Your task to perform on an android device: open app "Pluto TV - Live TV and Movies" (install if not already installed), go to login, and select forgot password Image 0: 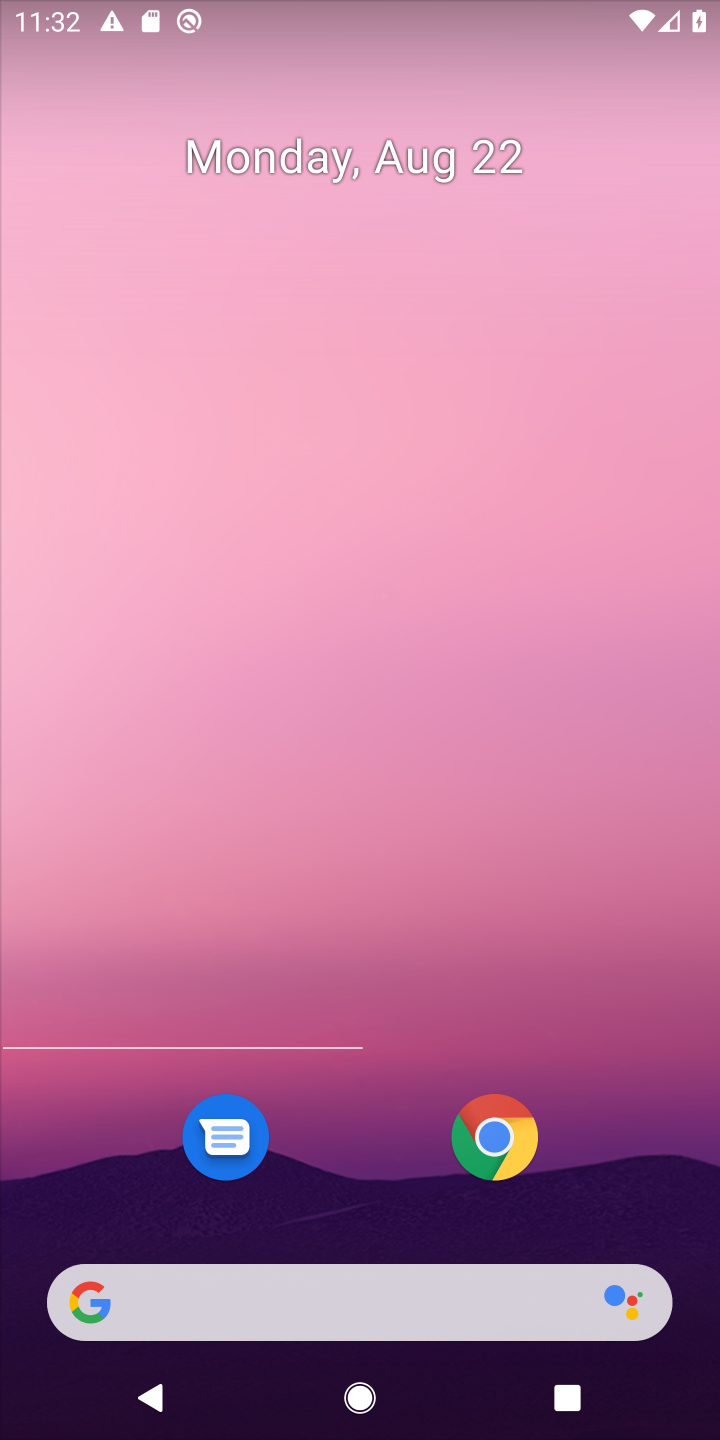
Step 0: press home button
Your task to perform on an android device: open app "Pluto TV - Live TV and Movies" (install if not already installed), go to login, and select forgot password Image 1: 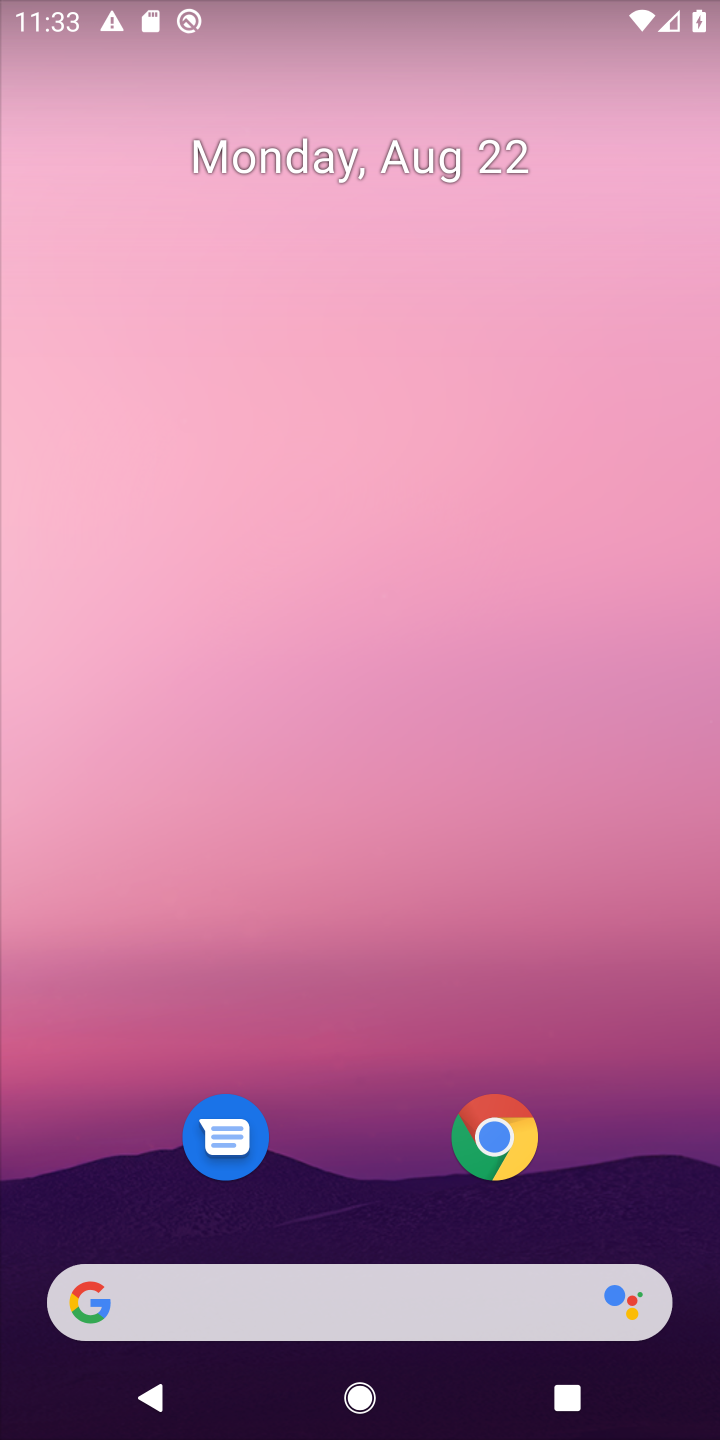
Step 1: drag from (385, 329) to (432, 227)
Your task to perform on an android device: open app "Pluto TV - Live TV and Movies" (install if not already installed), go to login, and select forgot password Image 2: 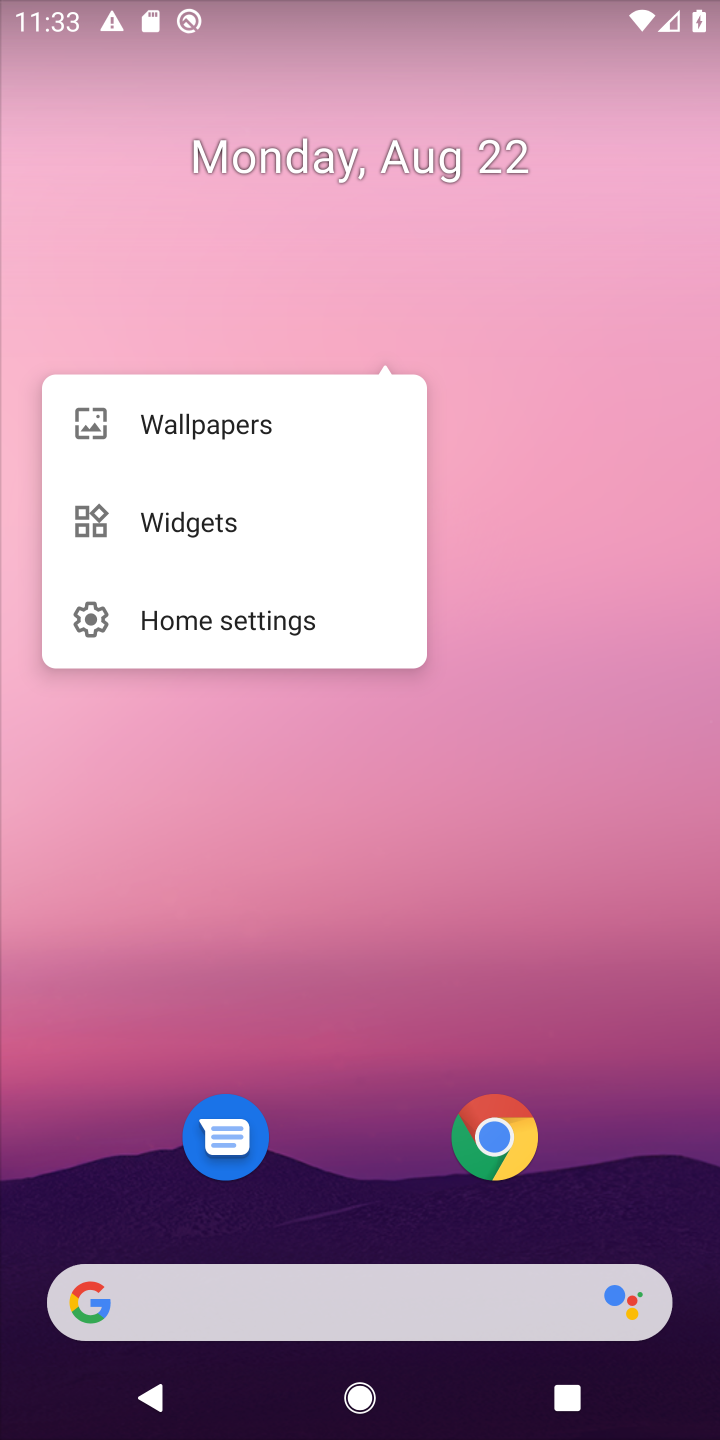
Step 2: click (334, 1213)
Your task to perform on an android device: open app "Pluto TV - Live TV and Movies" (install if not already installed), go to login, and select forgot password Image 3: 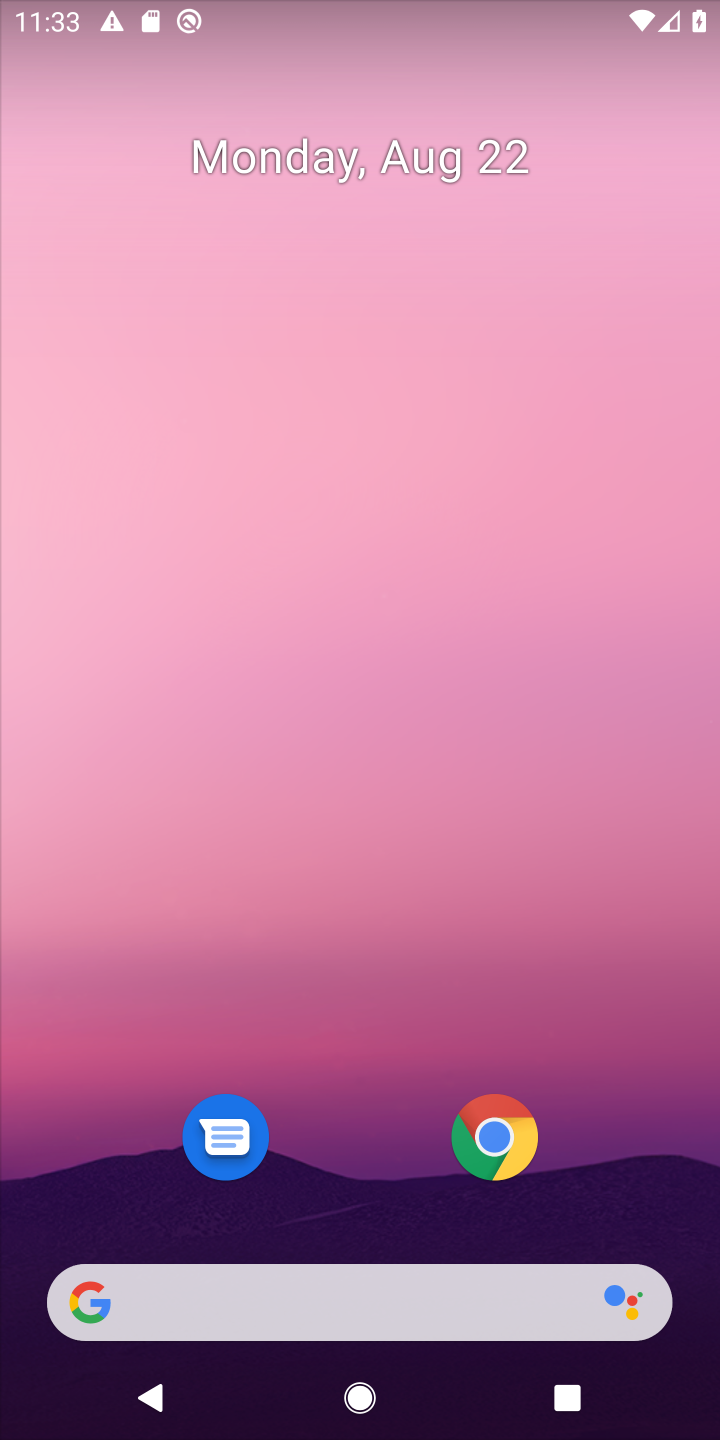
Step 3: drag from (334, 1141) to (350, 102)
Your task to perform on an android device: open app "Pluto TV - Live TV and Movies" (install if not already installed), go to login, and select forgot password Image 4: 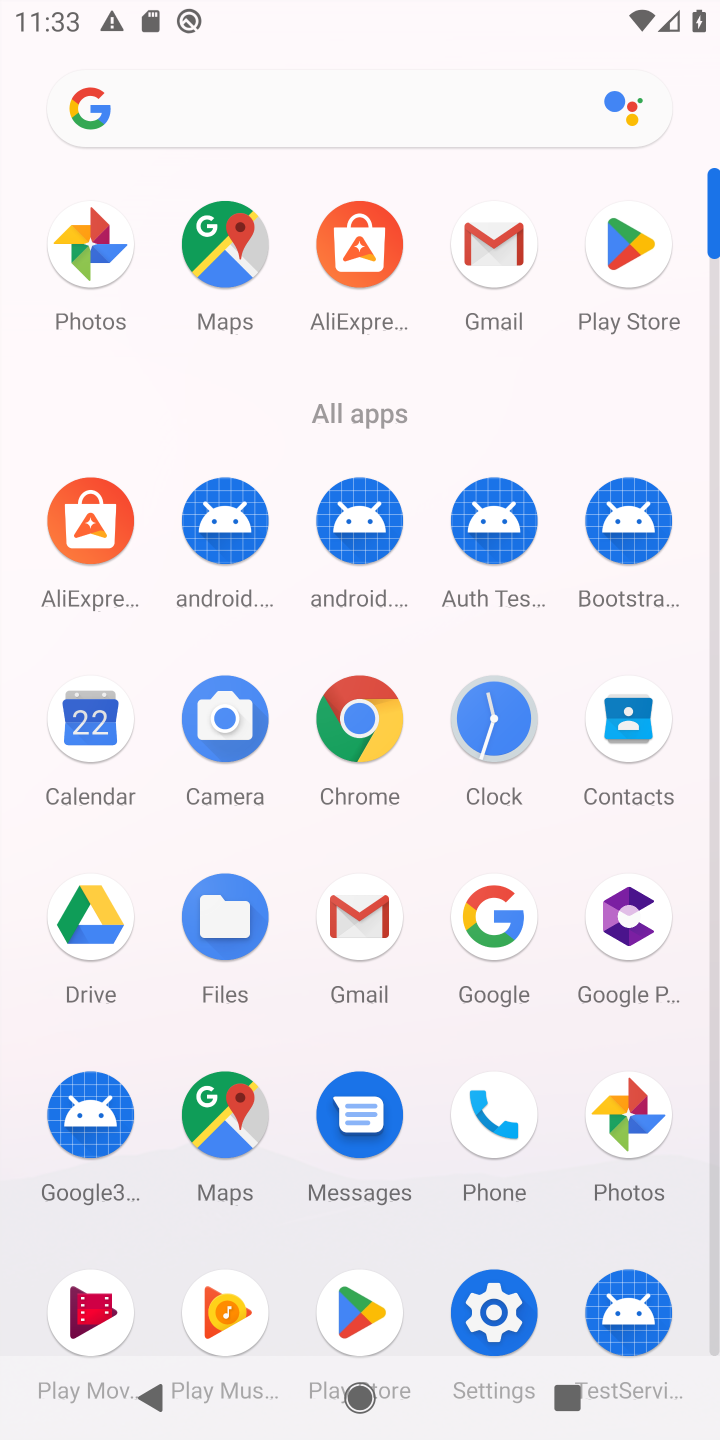
Step 4: click (626, 238)
Your task to perform on an android device: open app "Pluto TV - Live TV and Movies" (install if not already installed), go to login, and select forgot password Image 5: 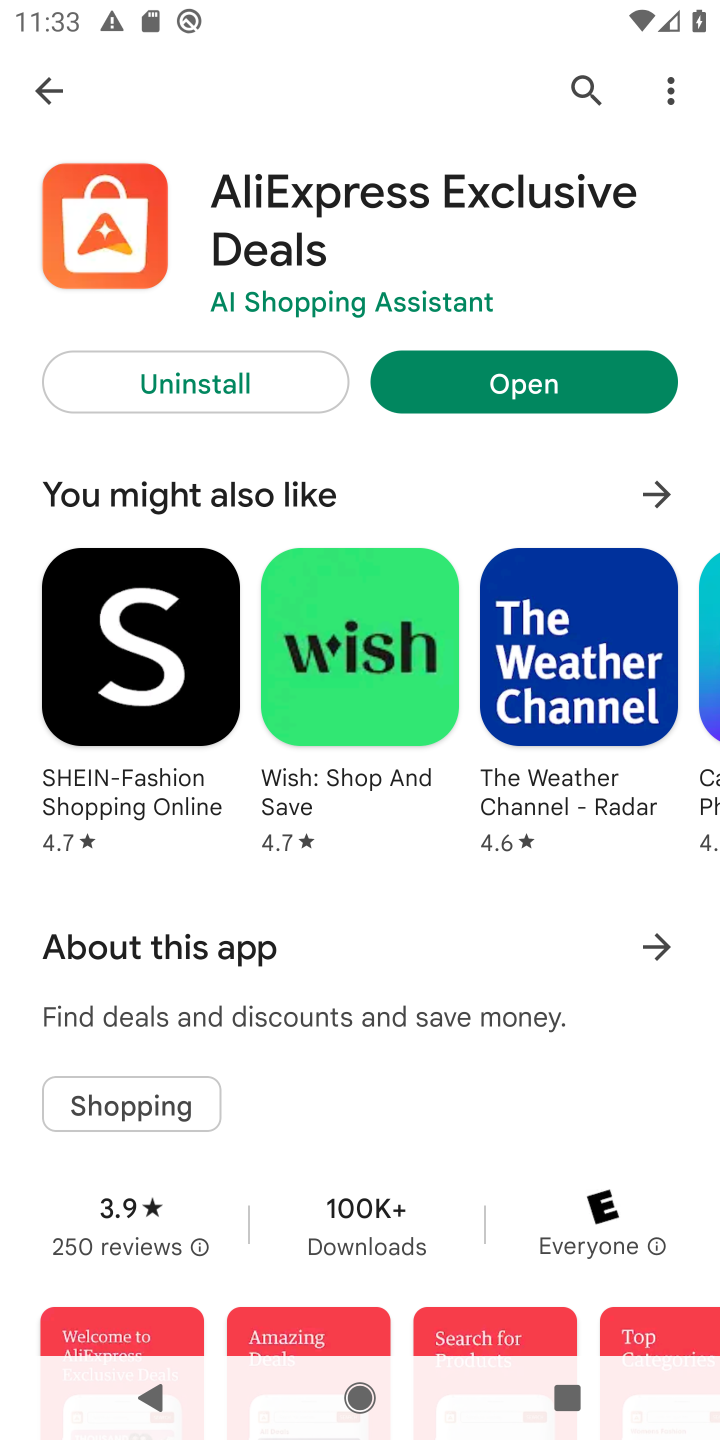
Step 5: click (40, 85)
Your task to perform on an android device: open app "Pluto TV - Live TV and Movies" (install if not already installed), go to login, and select forgot password Image 6: 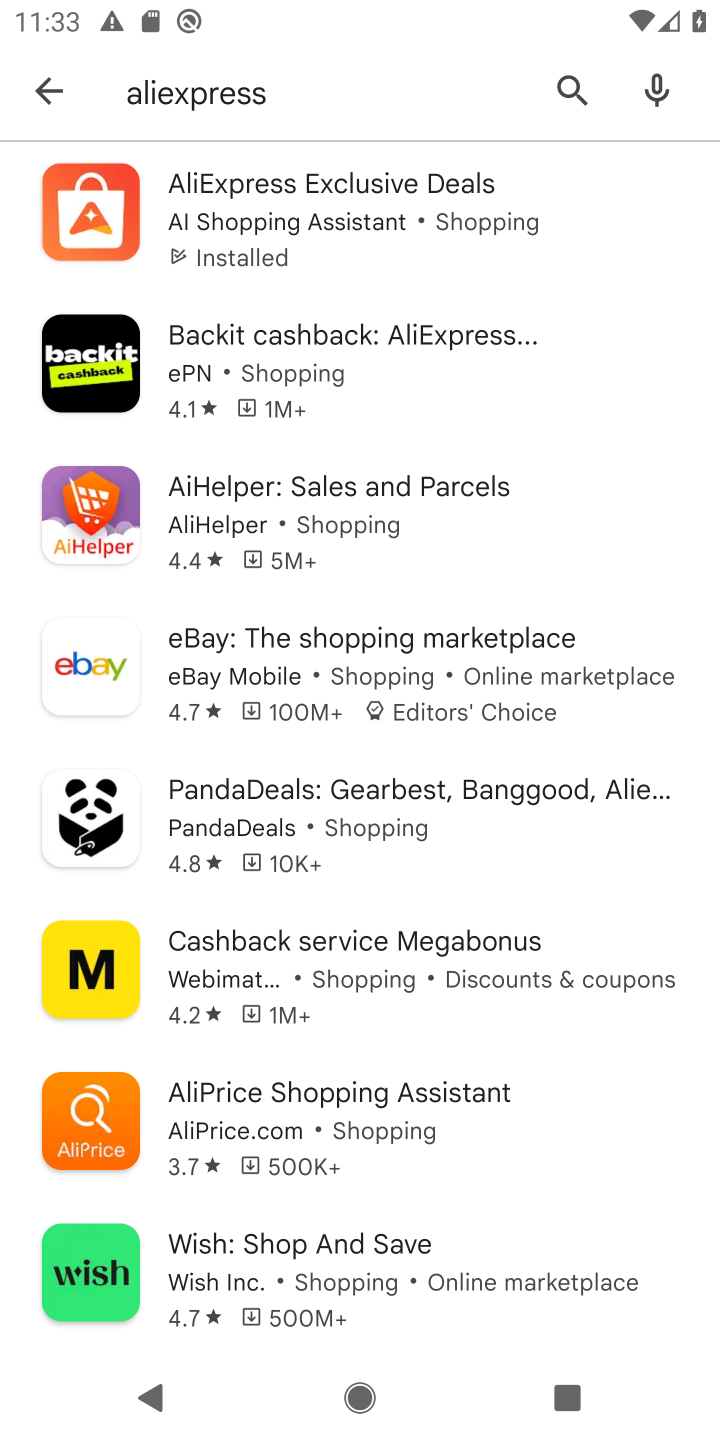
Step 6: click (34, 90)
Your task to perform on an android device: open app "Pluto TV - Live TV and Movies" (install if not already installed), go to login, and select forgot password Image 7: 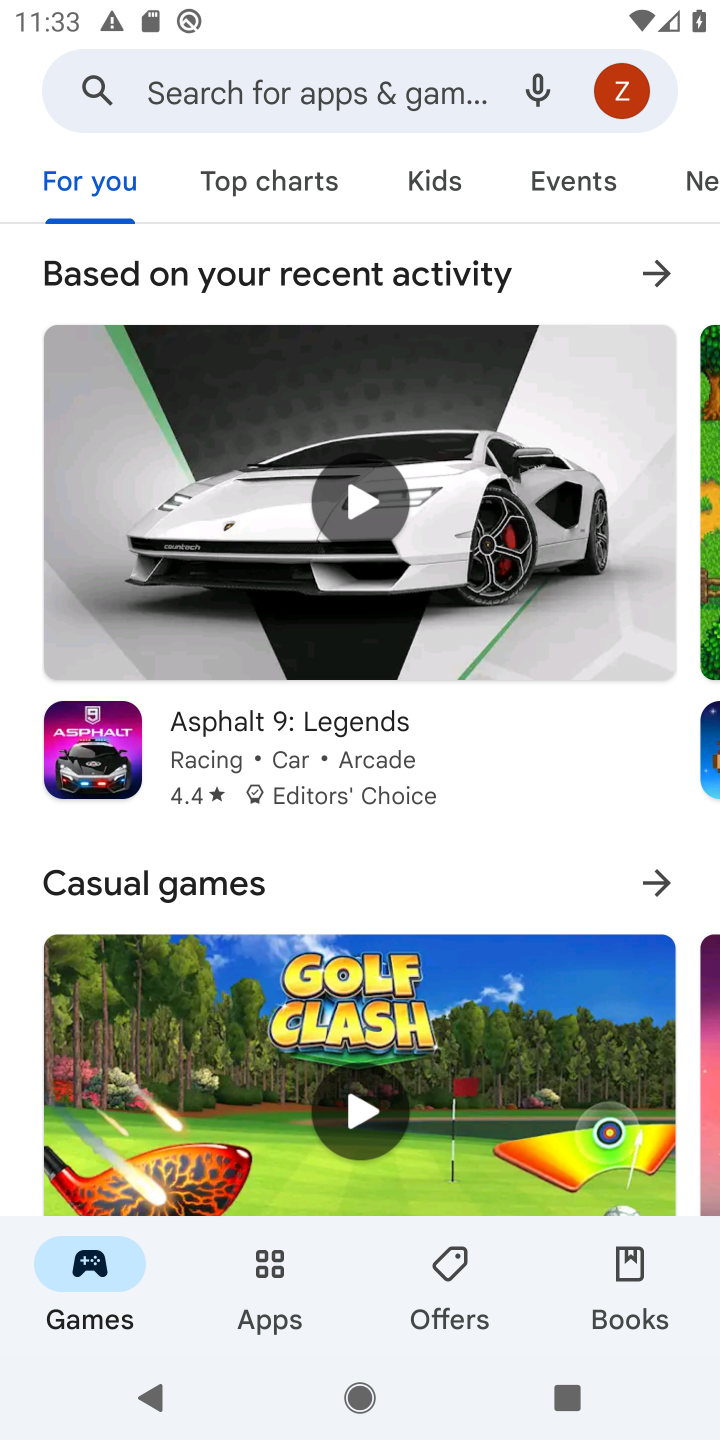
Step 7: click (265, 90)
Your task to perform on an android device: open app "Pluto TV - Live TV and Movies" (install if not already installed), go to login, and select forgot password Image 8: 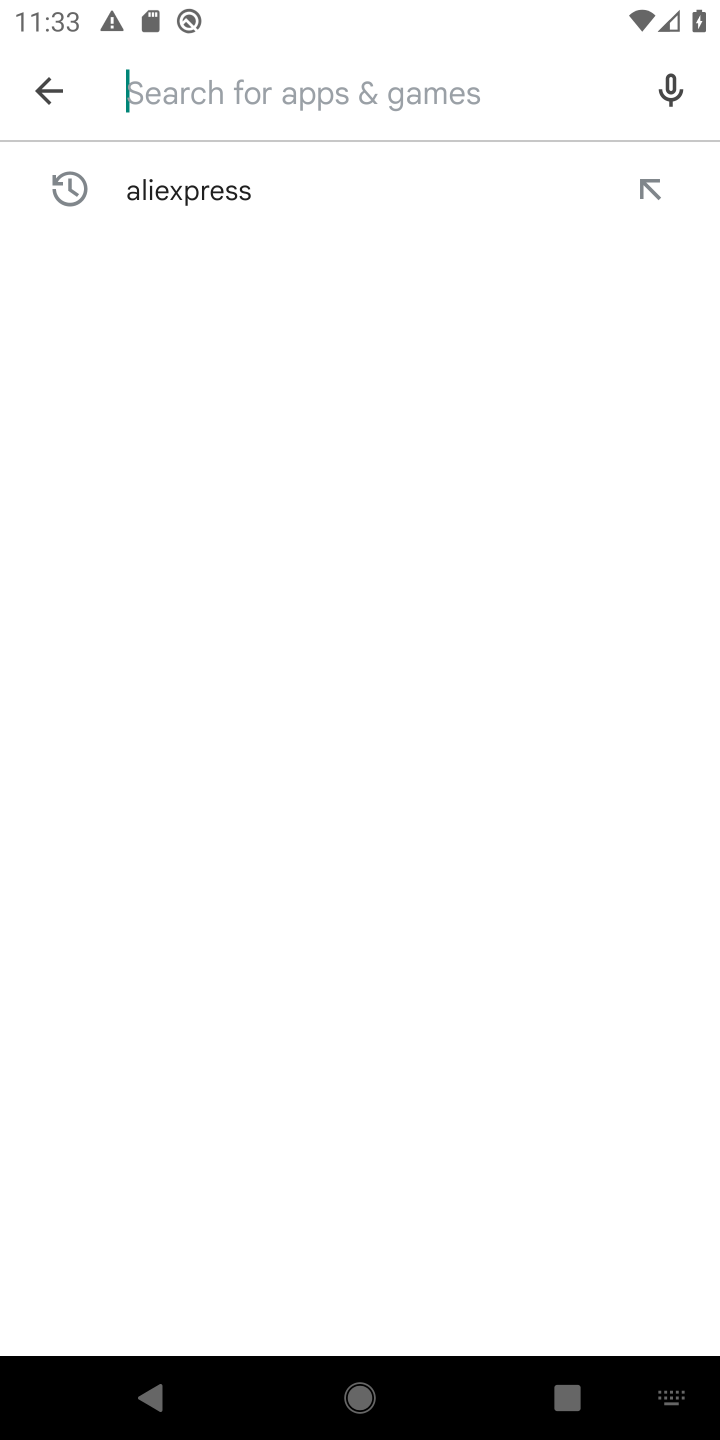
Step 8: type "Pluto TV"
Your task to perform on an android device: open app "Pluto TV - Live TV and Movies" (install if not already installed), go to login, and select forgot password Image 9: 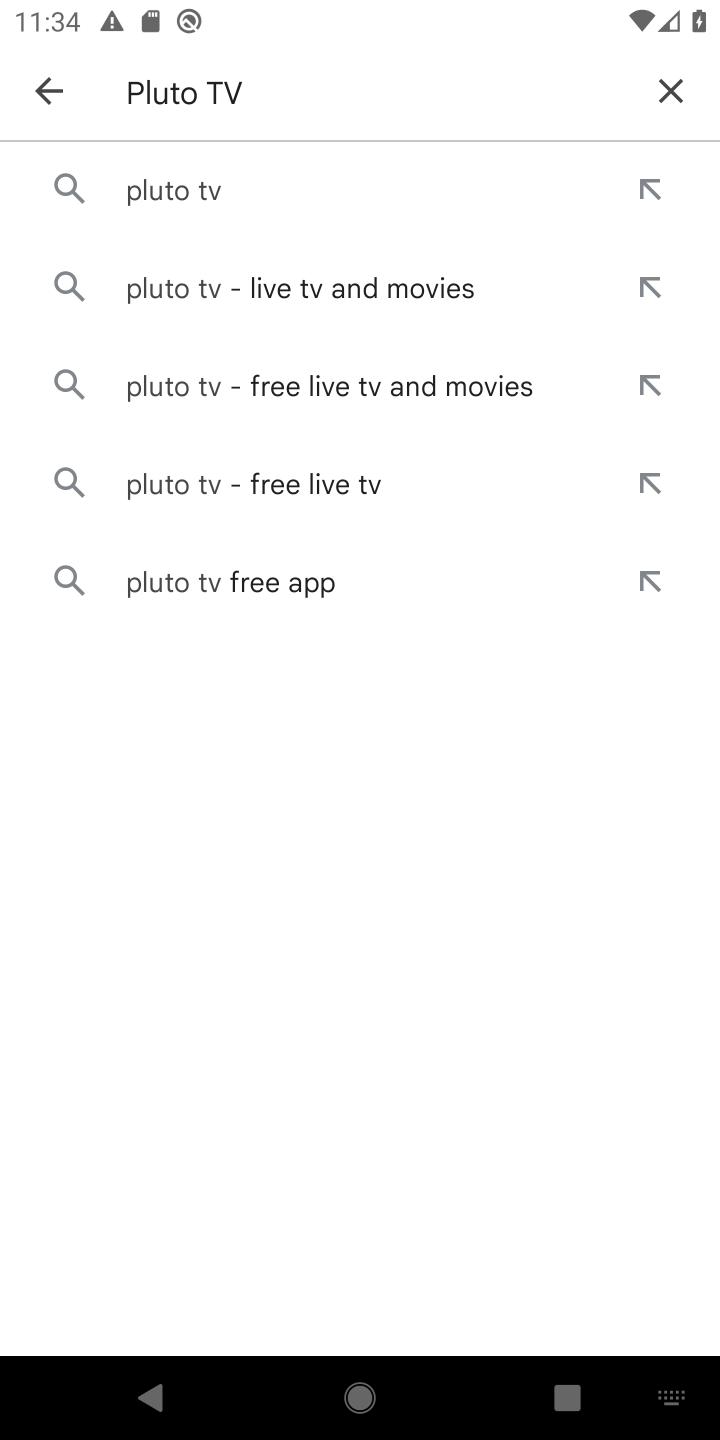
Step 9: click (145, 178)
Your task to perform on an android device: open app "Pluto TV - Live TV and Movies" (install if not already installed), go to login, and select forgot password Image 10: 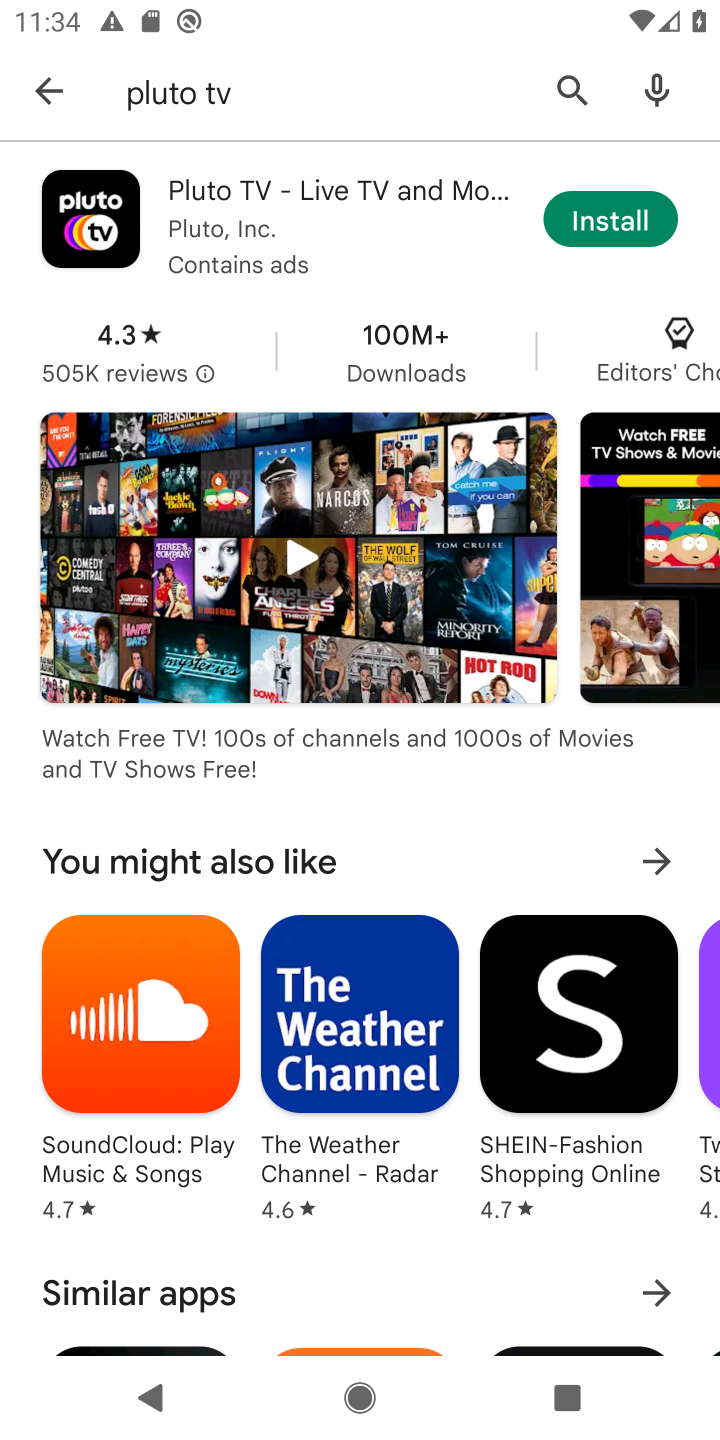
Step 10: click (594, 200)
Your task to perform on an android device: open app "Pluto TV - Live TV and Movies" (install if not already installed), go to login, and select forgot password Image 11: 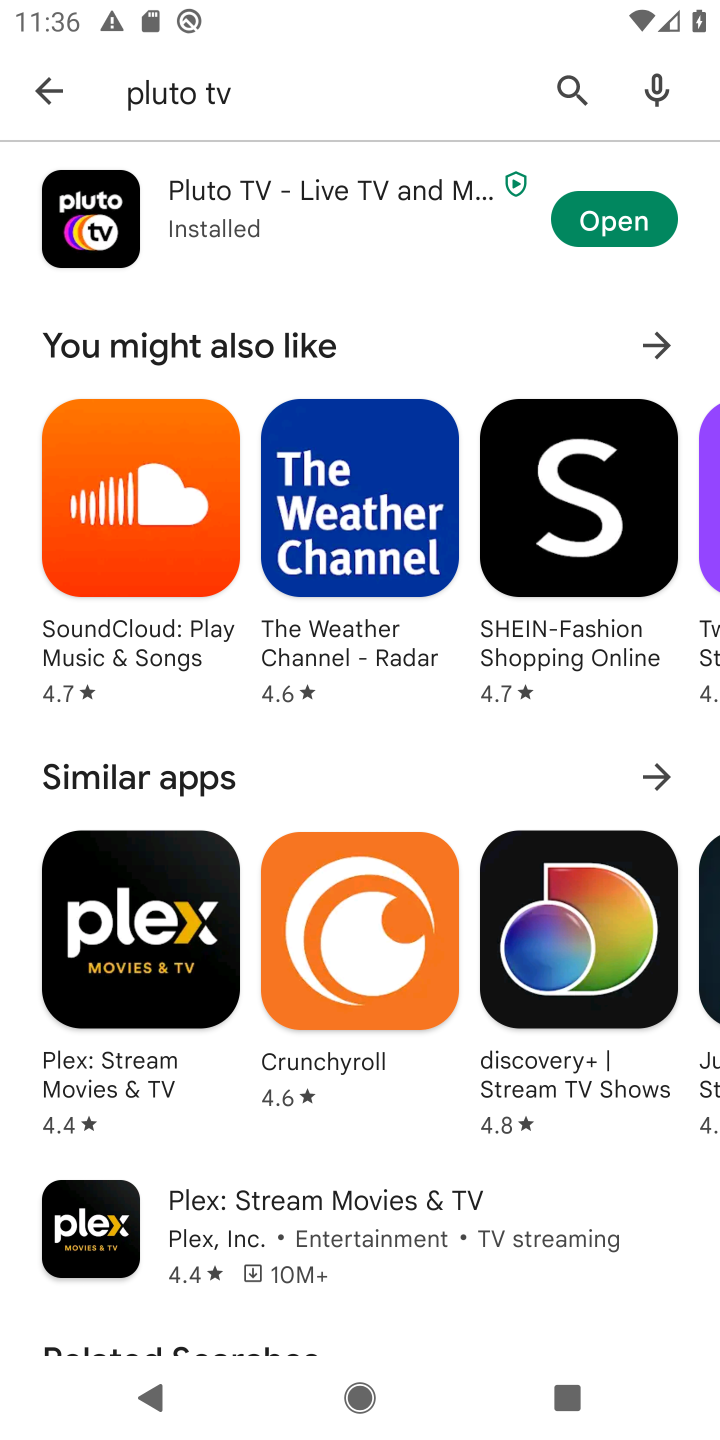
Step 11: click (605, 216)
Your task to perform on an android device: open app "Pluto TV - Live TV and Movies" (install if not already installed), go to login, and select forgot password Image 12: 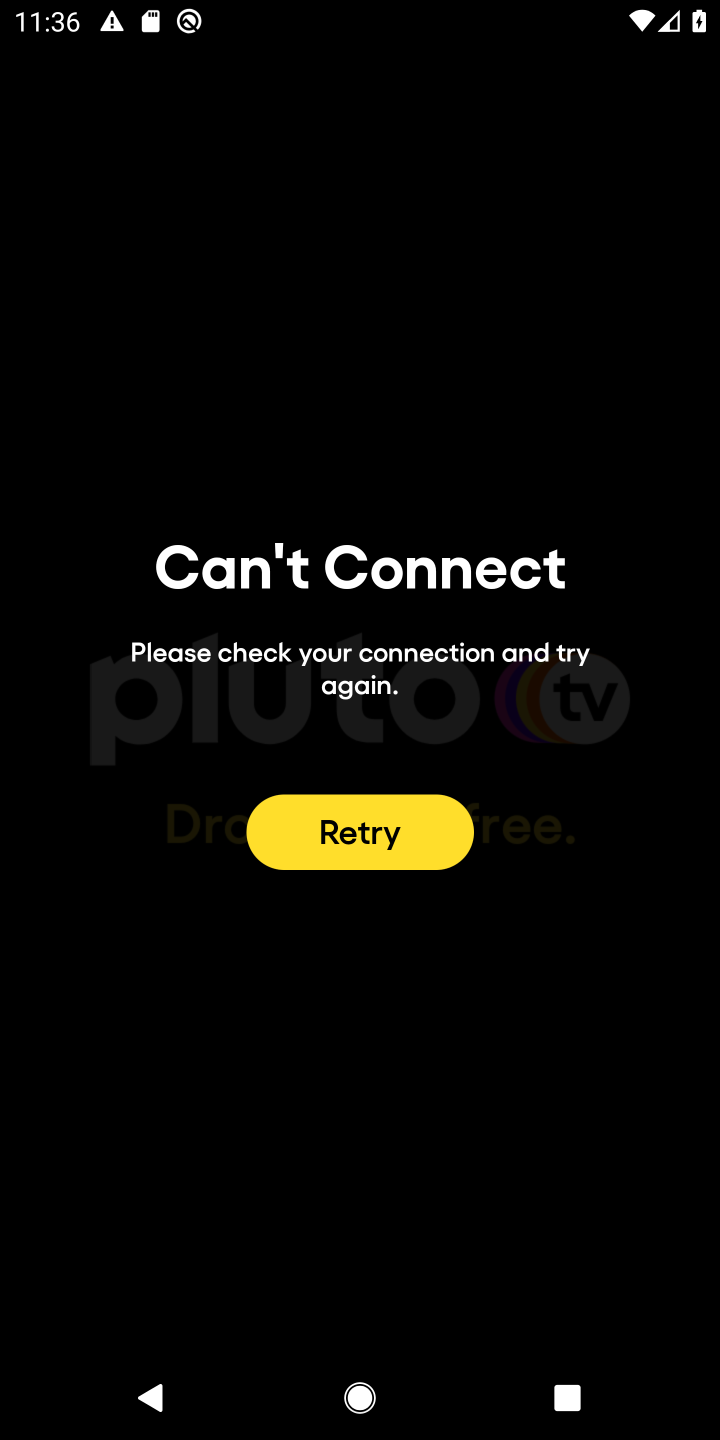
Step 12: task complete